Your task to perform on an android device: Check the weather Image 0: 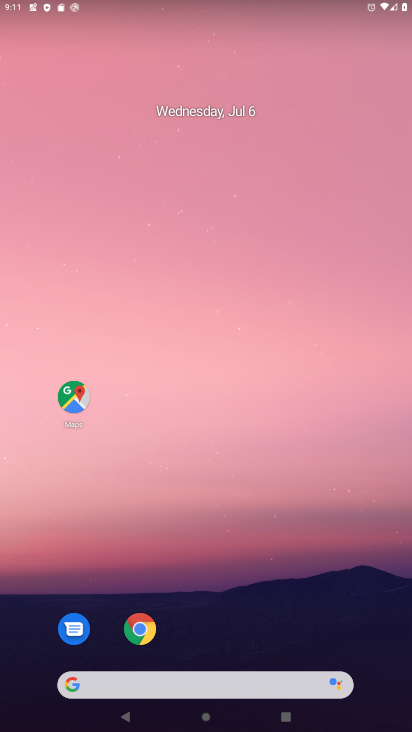
Step 0: click (218, 682)
Your task to perform on an android device: Check the weather Image 1: 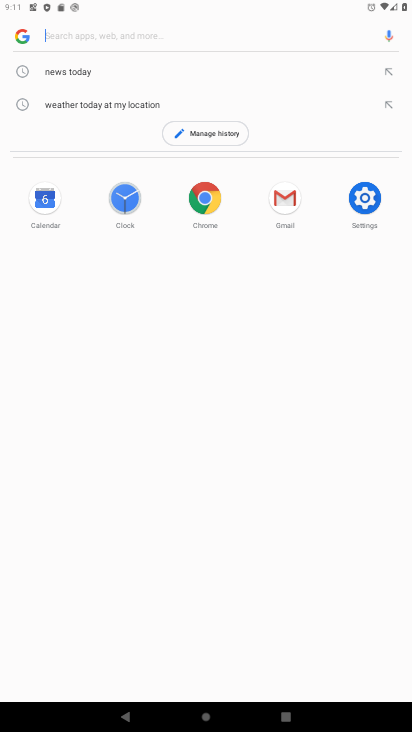
Step 1: type "weather"
Your task to perform on an android device: Check the weather Image 2: 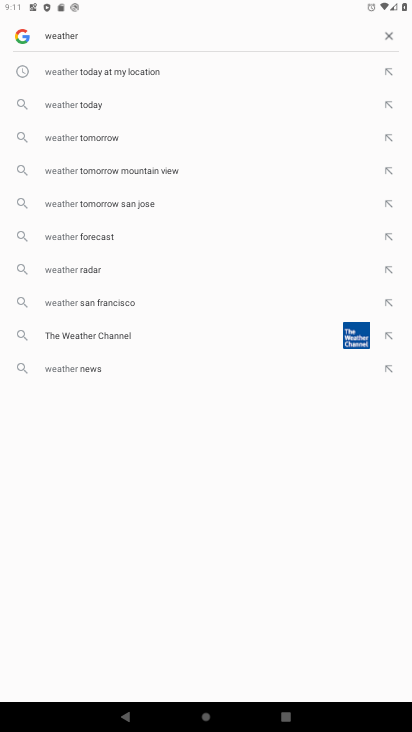
Step 2: click (102, 80)
Your task to perform on an android device: Check the weather Image 3: 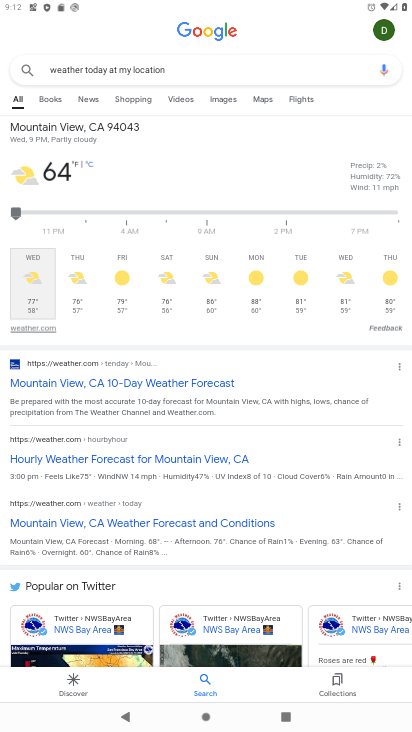
Step 3: task complete